Your task to perform on an android device: change keyboard looks Image 0: 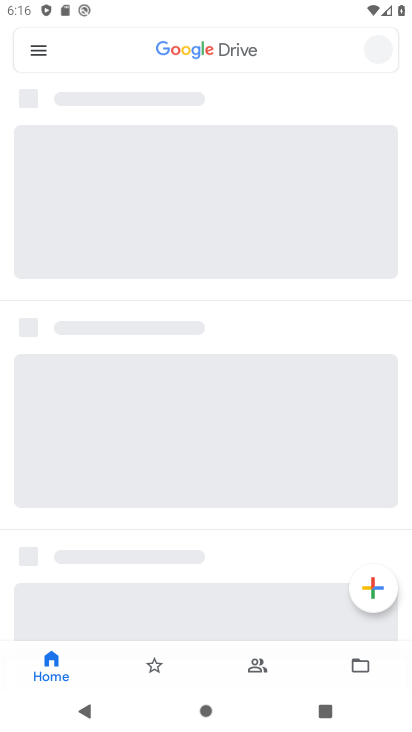
Step 0: press home button
Your task to perform on an android device: change keyboard looks Image 1: 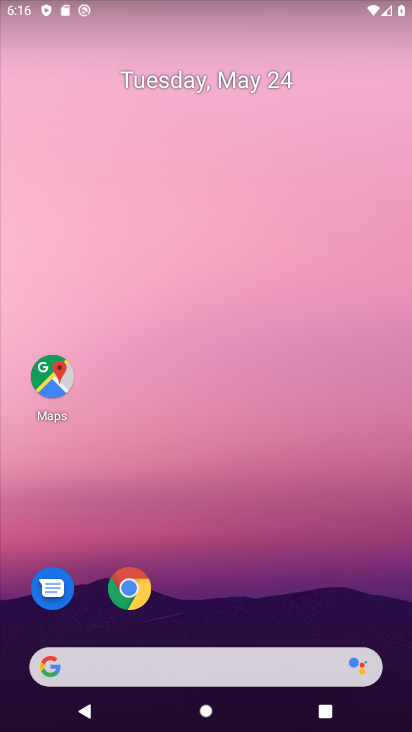
Step 1: drag from (339, 649) to (351, 23)
Your task to perform on an android device: change keyboard looks Image 2: 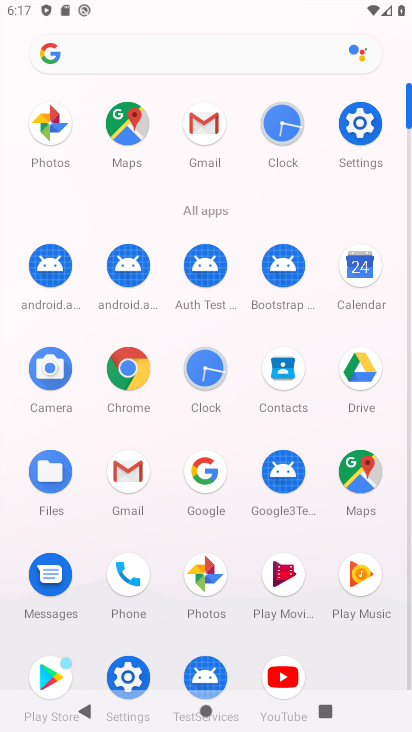
Step 2: click (356, 135)
Your task to perform on an android device: change keyboard looks Image 3: 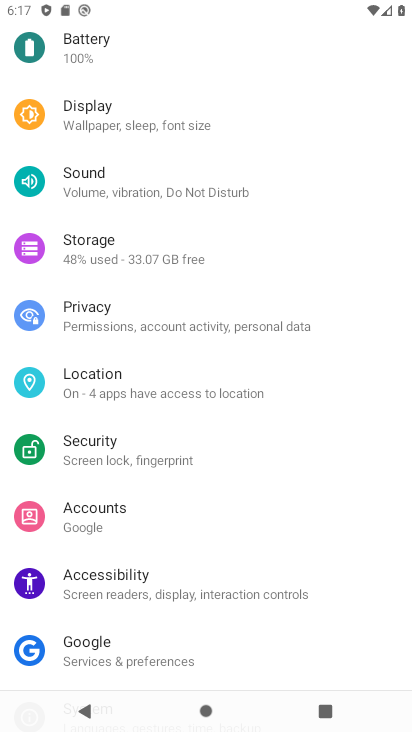
Step 3: drag from (178, 198) to (123, 650)
Your task to perform on an android device: change keyboard looks Image 4: 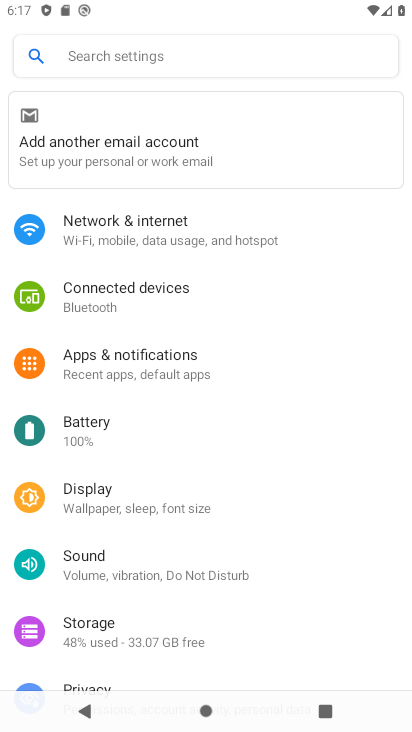
Step 4: drag from (249, 636) to (315, 43)
Your task to perform on an android device: change keyboard looks Image 5: 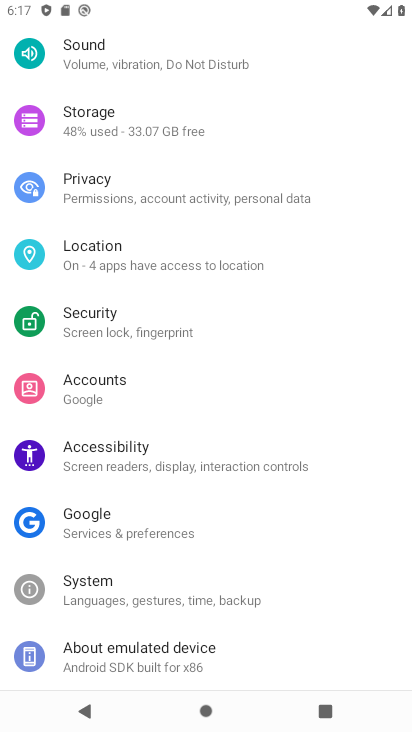
Step 5: click (178, 596)
Your task to perform on an android device: change keyboard looks Image 6: 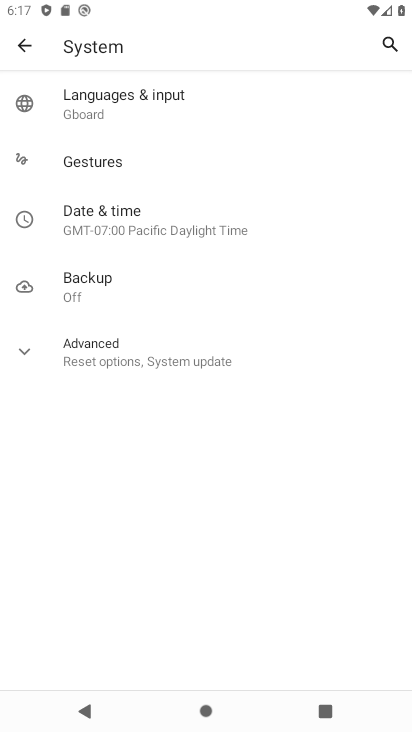
Step 6: click (135, 103)
Your task to perform on an android device: change keyboard looks Image 7: 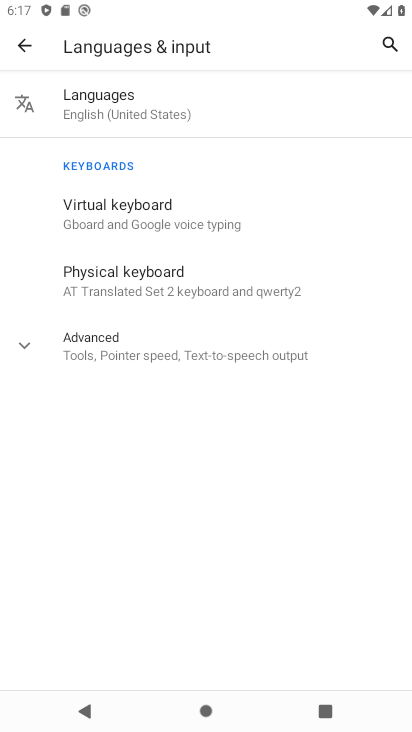
Step 7: click (148, 225)
Your task to perform on an android device: change keyboard looks Image 8: 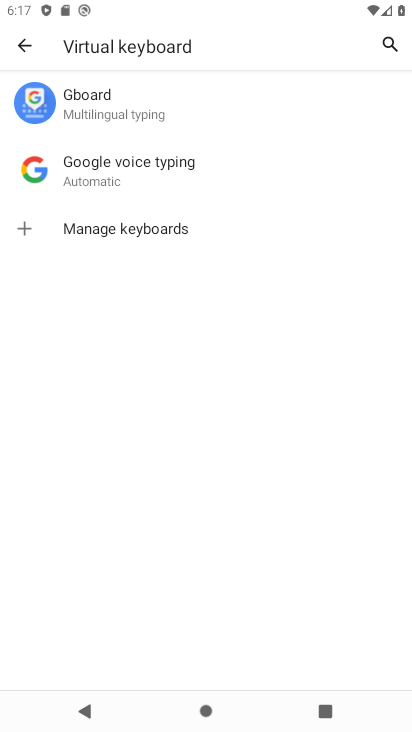
Step 8: click (123, 100)
Your task to perform on an android device: change keyboard looks Image 9: 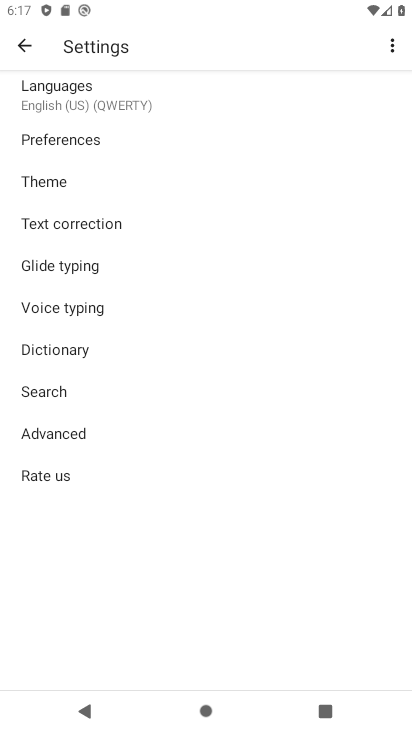
Step 9: click (73, 193)
Your task to perform on an android device: change keyboard looks Image 10: 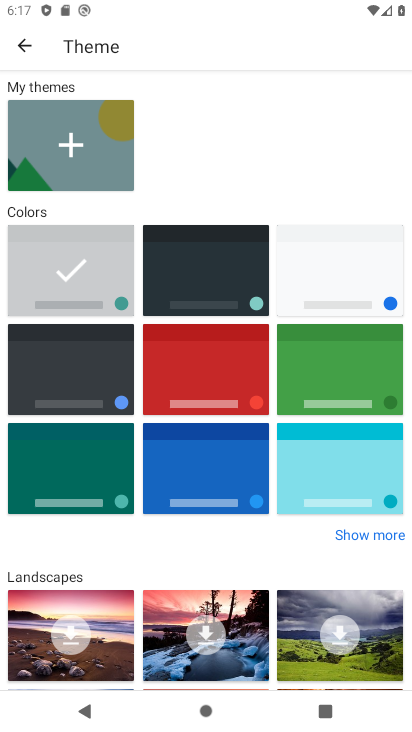
Step 10: click (213, 450)
Your task to perform on an android device: change keyboard looks Image 11: 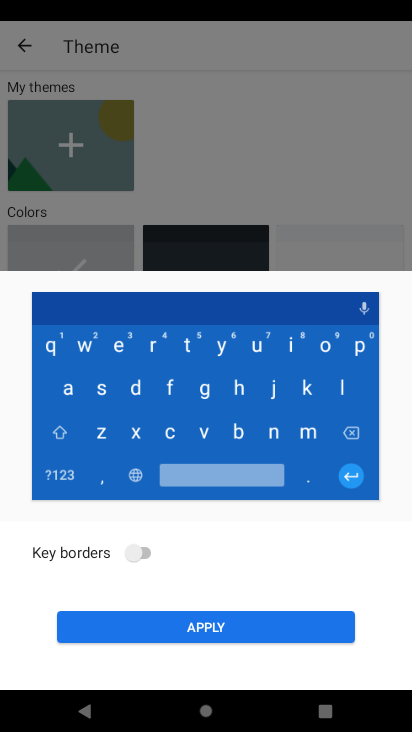
Step 11: click (210, 637)
Your task to perform on an android device: change keyboard looks Image 12: 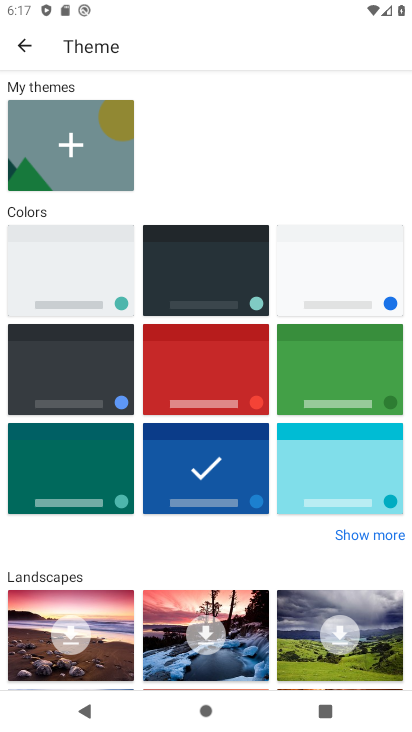
Step 12: task complete